Your task to perform on an android device: Open Google Chrome and click the shortcut for Amazon.com Image 0: 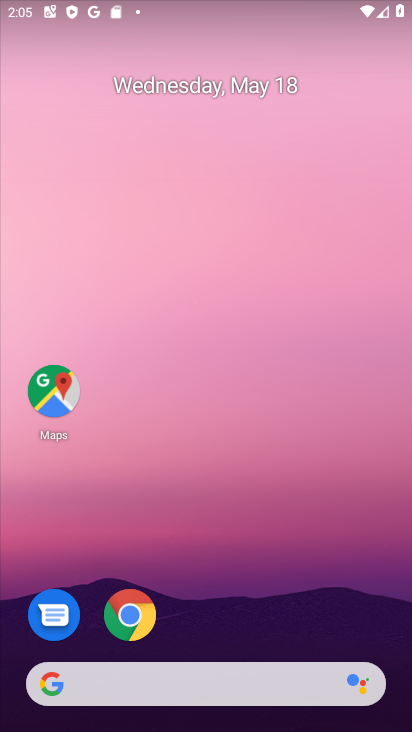
Step 0: click (136, 613)
Your task to perform on an android device: Open Google Chrome and click the shortcut for Amazon.com Image 1: 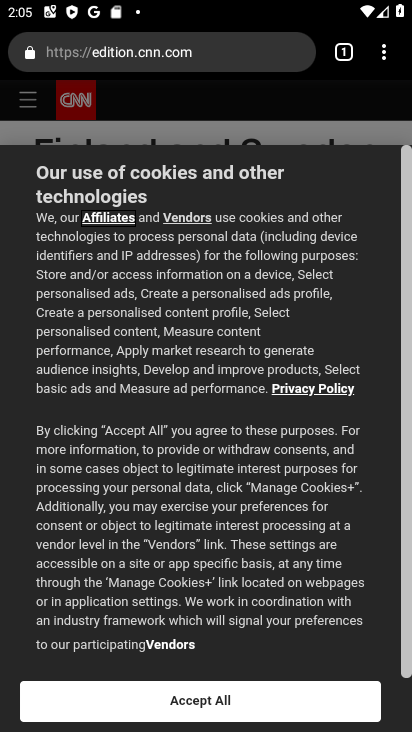
Step 1: click (351, 53)
Your task to perform on an android device: Open Google Chrome and click the shortcut for Amazon.com Image 2: 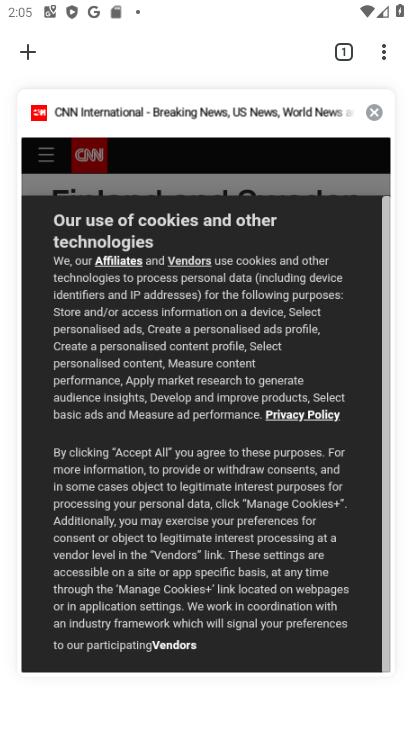
Step 2: click (24, 43)
Your task to perform on an android device: Open Google Chrome and click the shortcut for Amazon.com Image 3: 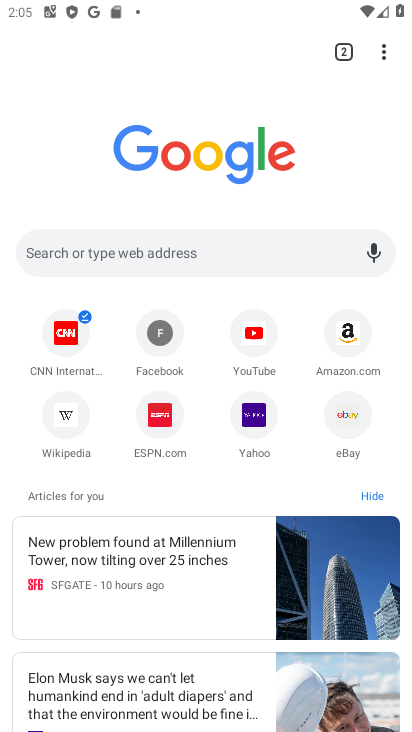
Step 3: click (360, 323)
Your task to perform on an android device: Open Google Chrome and click the shortcut for Amazon.com Image 4: 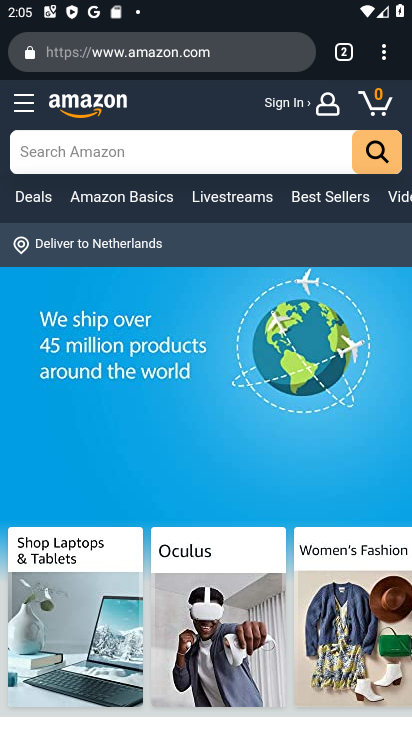
Step 4: task complete